Your task to perform on an android device: What is the recent news? Image 0: 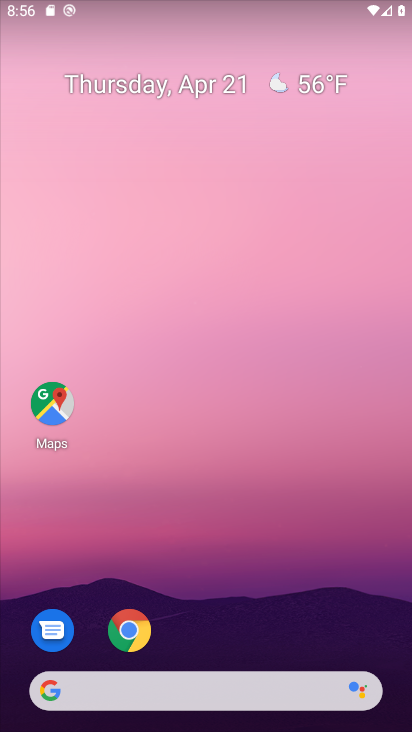
Step 0: click (155, 684)
Your task to perform on an android device: What is the recent news? Image 1: 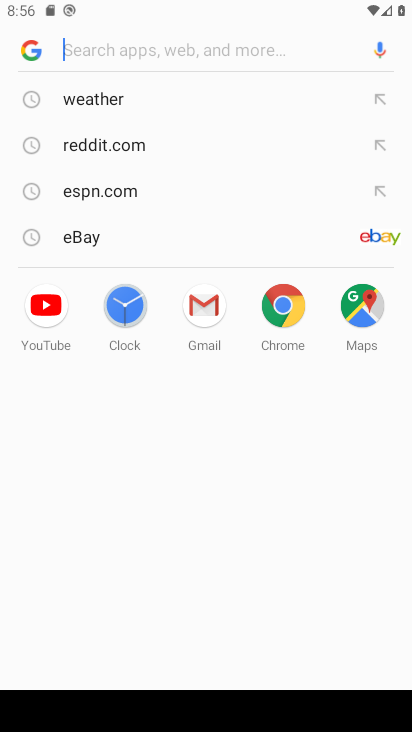
Step 1: type "recent news"
Your task to perform on an android device: What is the recent news? Image 2: 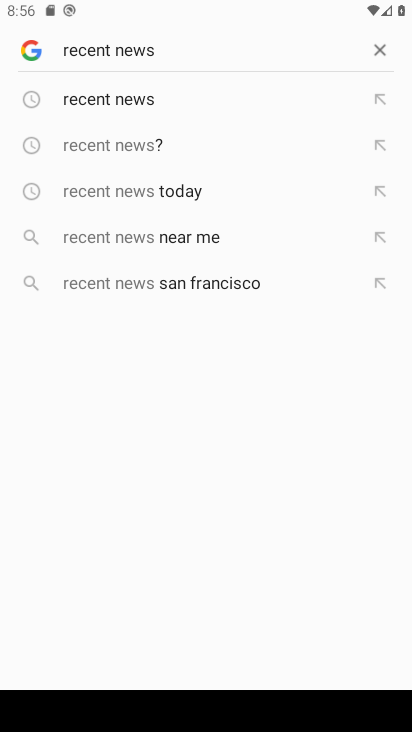
Step 2: click (166, 146)
Your task to perform on an android device: What is the recent news? Image 3: 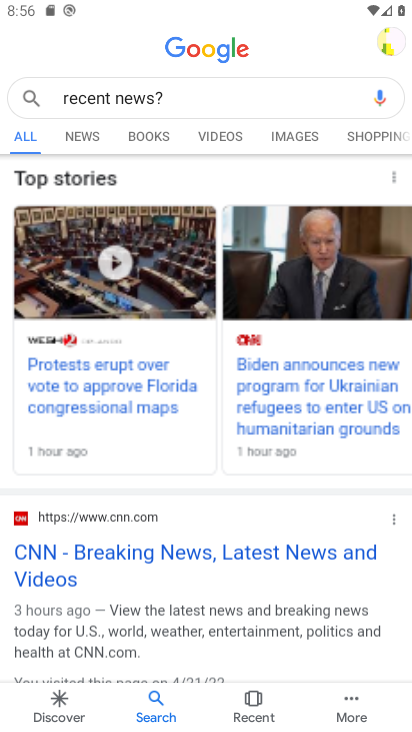
Step 3: task complete